Your task to perform on an android device: turn on notifications settings in the gmail app Image 0: 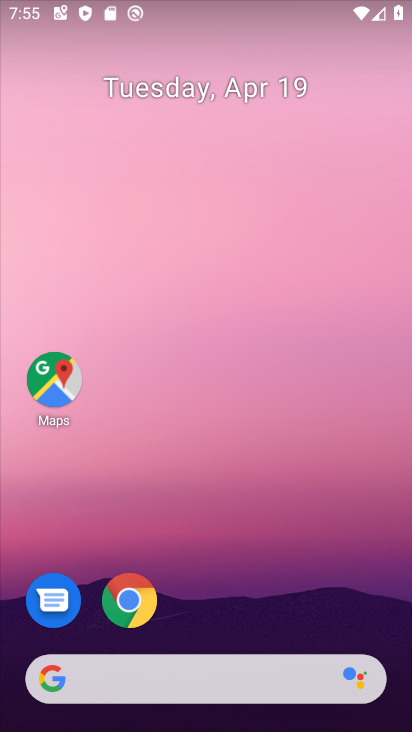
Step 0: drag from (290, 615) to (166, 107)
Your task to perform on an android device: turn on notifications settings in the gmail app Image 1: 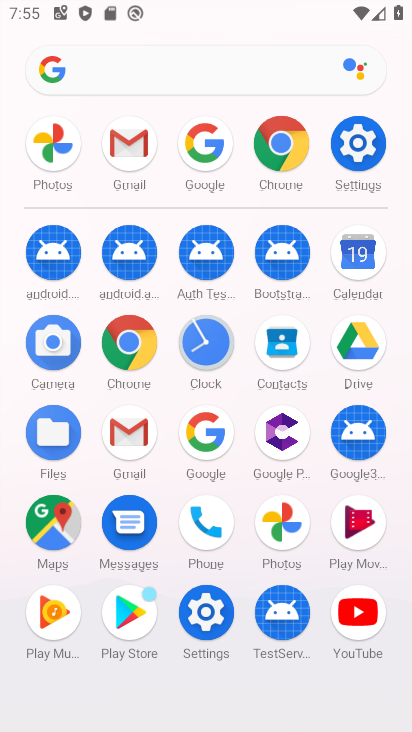
Step 1: click (136, 451)
Your task to perform on an android device: turn on notifications settings in the gmail app Image 2: 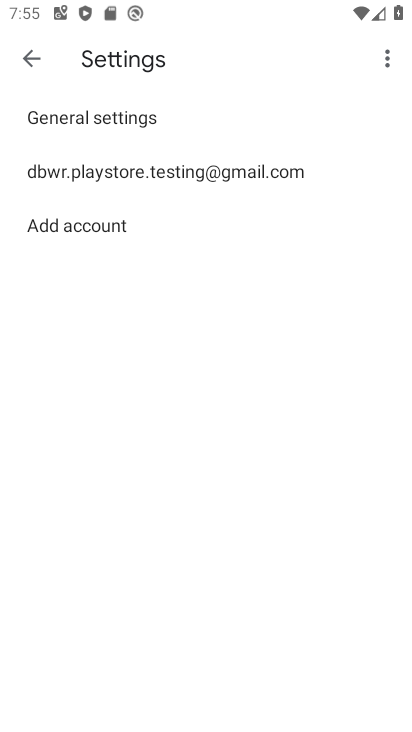
Step 2: click (147, 185)
Your task to perform on an android device: turn on notifications settings in the gmail app Image 3: 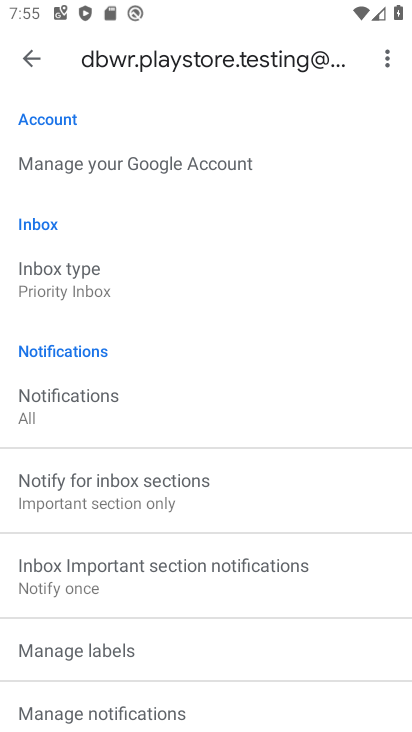
Step 3: click (116, 437)
Your task to perform on an android device: turn on notifications settings in the gmail app Image 4: 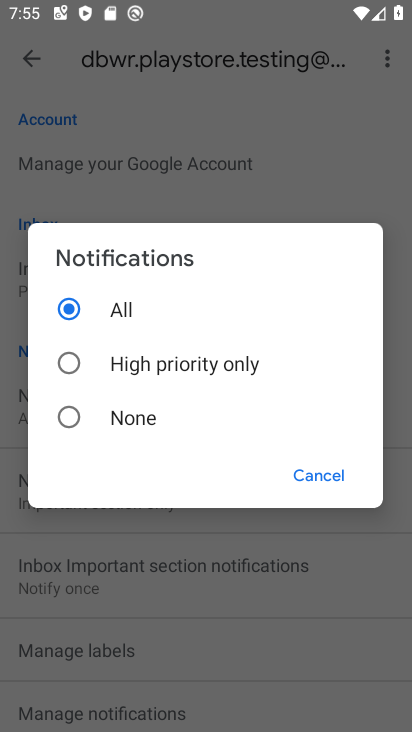
Step 4: task complete